Your task to perform on an android device: add a contact in the contacts app Image 0: 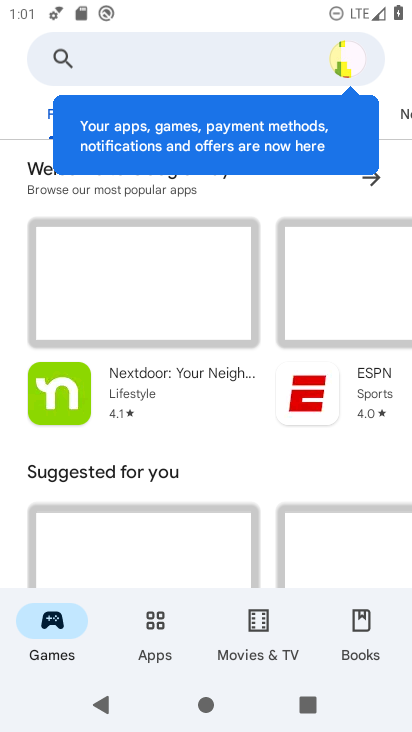
Step 0: press back button
Your task to perform on an android device: add a contact in the contacts app Image 1: 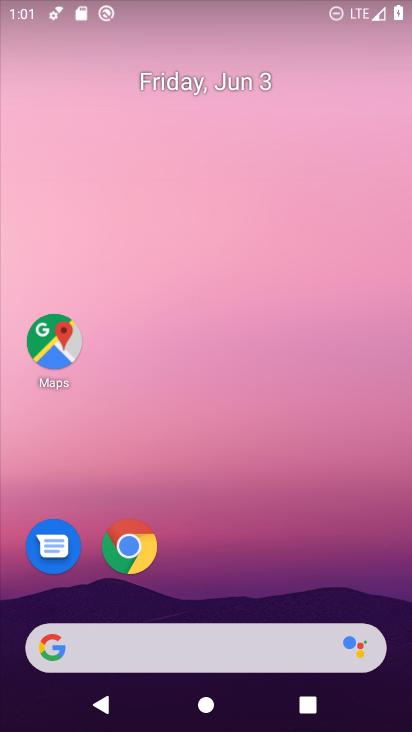
Step 1: drag from (271, 549) to (256, 42)
Your task to perform on an android device: add a contact in the contacts app Image 2: 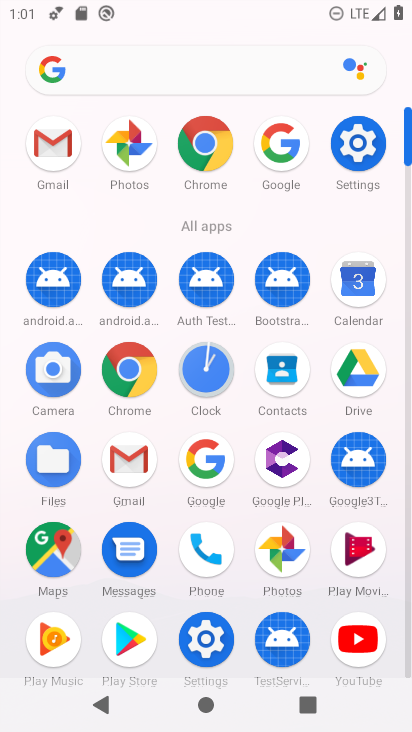
Step 2: click (281, 366)
Your task to perform on an android device: add a contact in the contacts app Image 3: 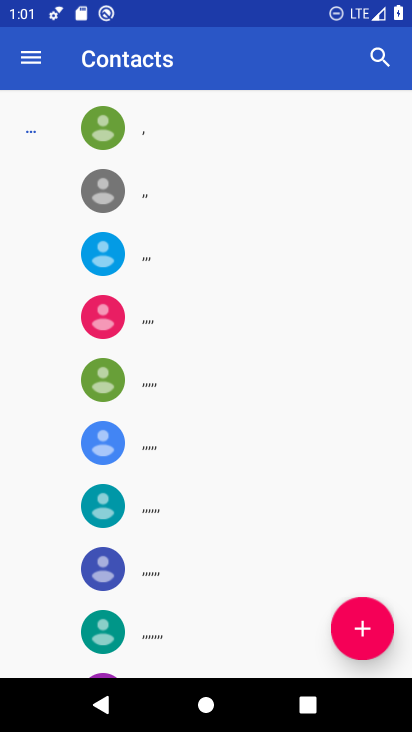
Step 3: click (360, 628)
Your task to perform on an android device: add a contact in the contacts app Image 4: 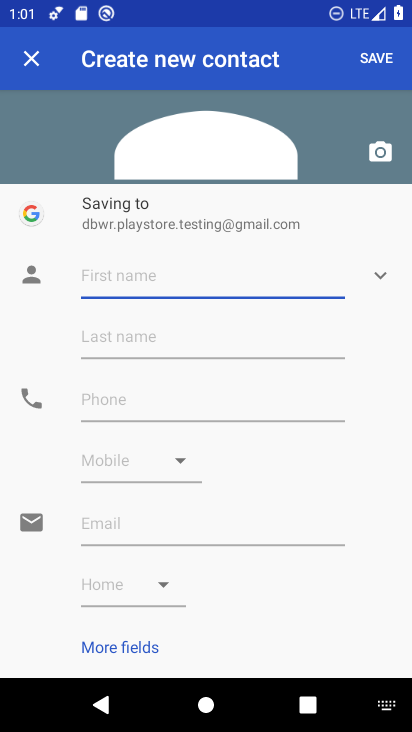
Step 4: type "Hemeng"
Your task to perform on an android device: add a contact in the contacts app Image 5: 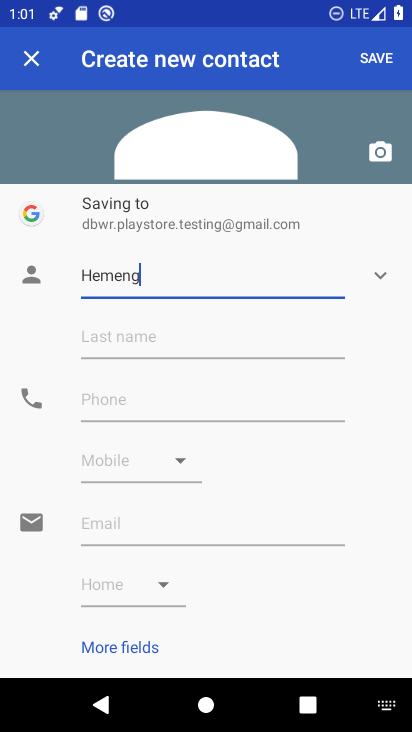
Step 5: click (277, 342)
Your task to perform on an android device: add a contact in the contacts app Image 6: 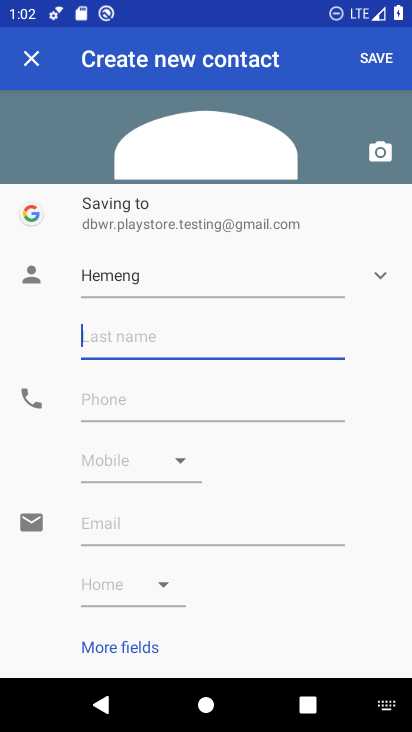
Step 6: type "Badani"
Your task to perform on an android device: add a contact in the contacts app Image 7: 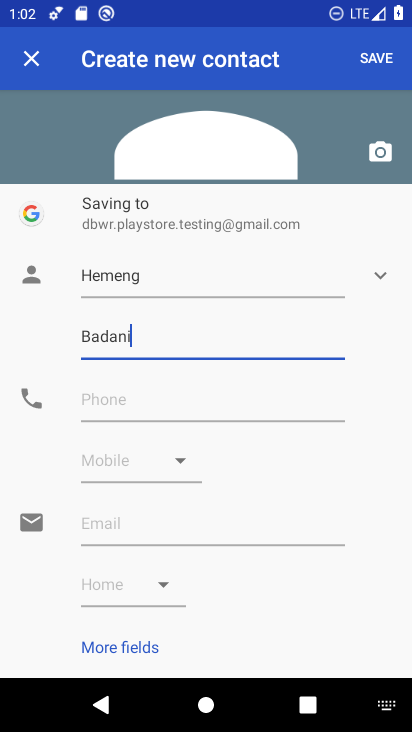
Step 7: type ""
Your task to perform on an android device: add a contact in the contacts app Image 8: 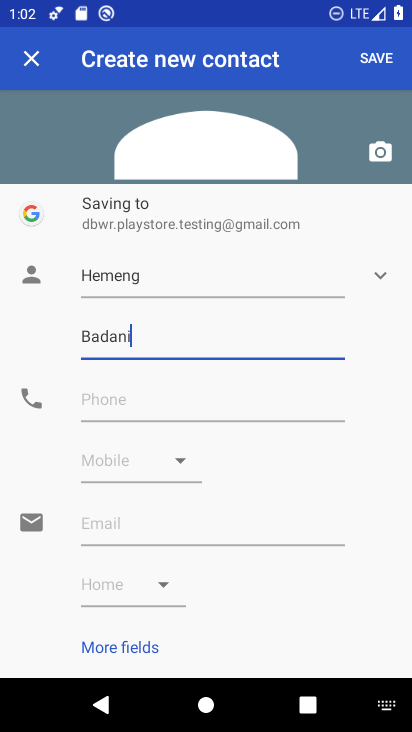
Step 8: click (205, 414)
Your task to perform on an android device: add a contact in the contacts app Image 9: 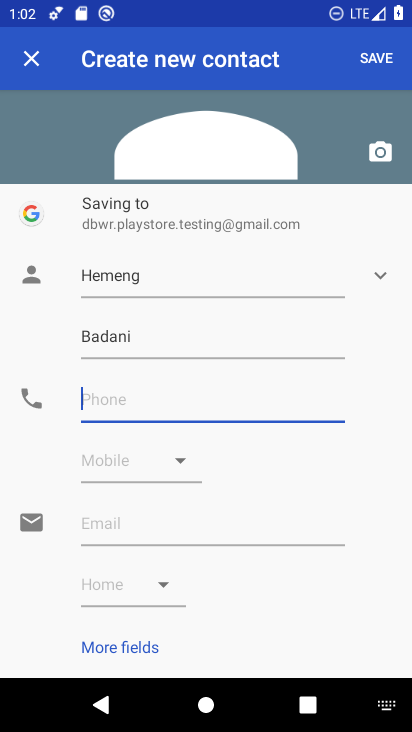
Step 9: type "09876546126"
Your task to perform on an android device: add a contact in the contacts app Image 10: 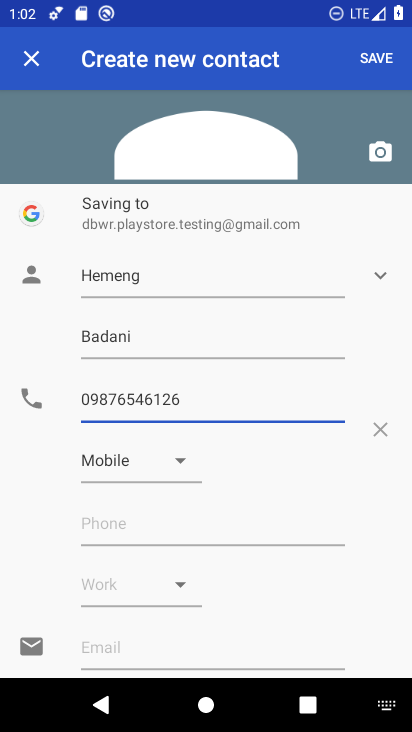
Step 10: click (371, 63)
Your task to perform on an android device: add a contact in the contacts app Image 11: 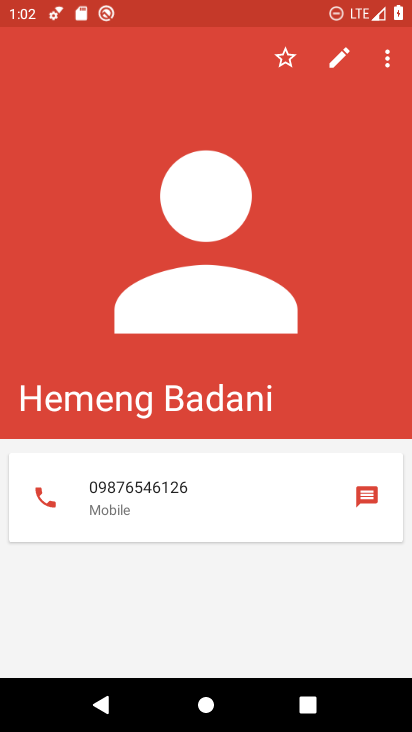
Step 11: task complete